Your task to perform on an android device: open device folders in google photos Image 0: 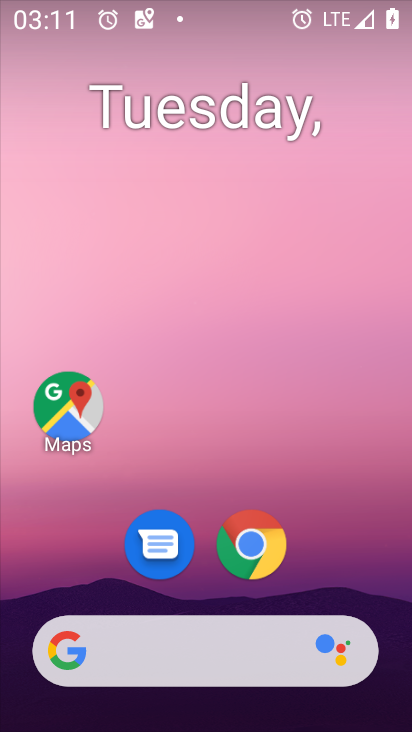
Step 0: drag from (349, 570) to (231, 36)
Your task to perform on an android device: open device folders in google photos Image 1: 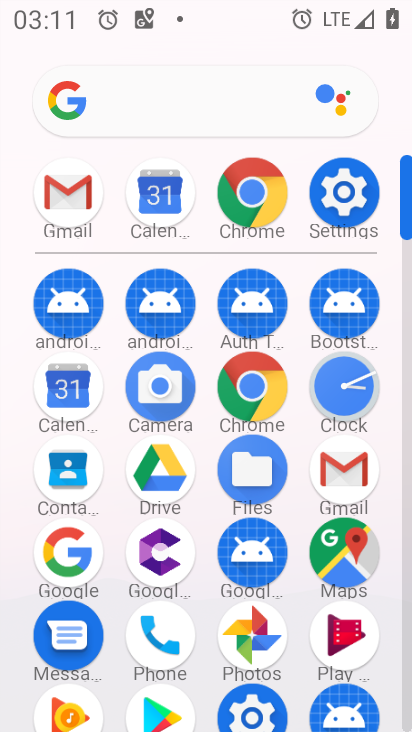
Step 1: drag from (7, 597) to (15, 222)
Your task to perform on an android device: open device folders in google photos Image 2: 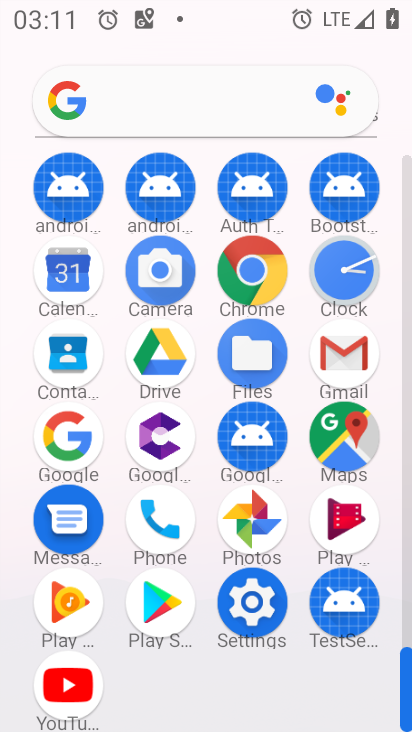
Step 2: drag from (7, 565) to (5, 273)
Your task to perform on an android device: open device folders in google photos Image 3: 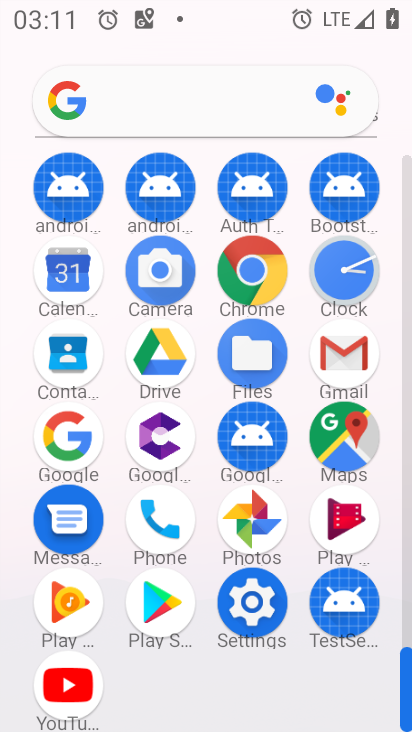
Step 3: click (249, 518)
Your task to perform on an android device: open device folders in google photos Image 4: 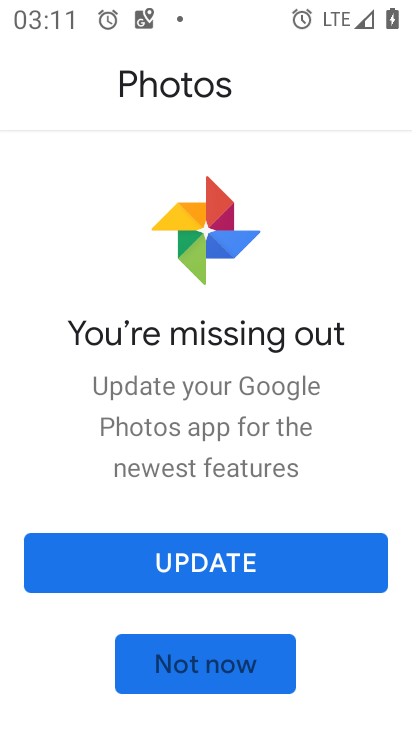
Step 4: click (225, 548)
Your task to perform on an android device: open device folders in google photos Image 5: 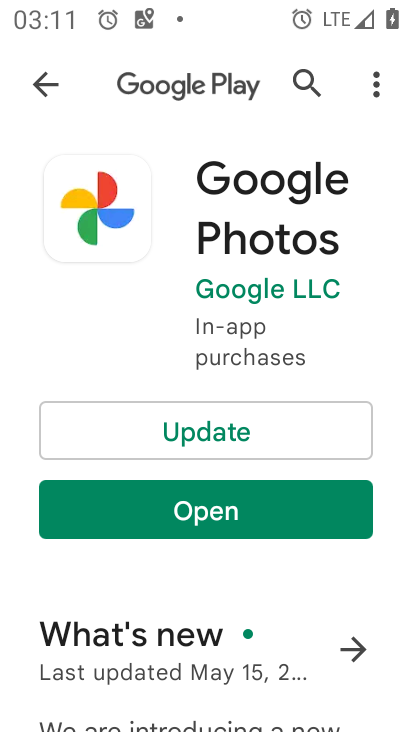
Step 5: click (219, 437)
Your task to perform on an android device: open device folders in google photos Image 6: 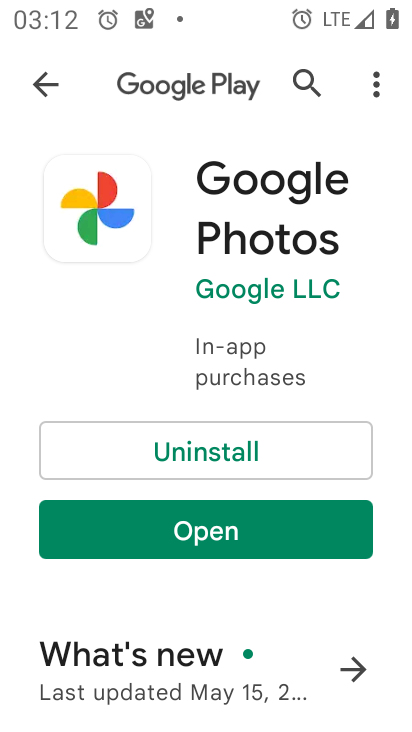
Step 6: click (205, 516)
Your task to perform on an android device: open device folders in google photos Image 7: 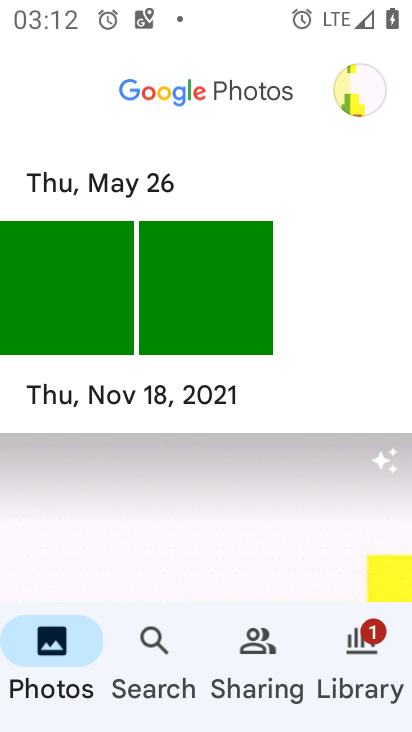
Step 7: click (354, 652)
Your task to perform on an android device: open device folders in google photos Image 8: 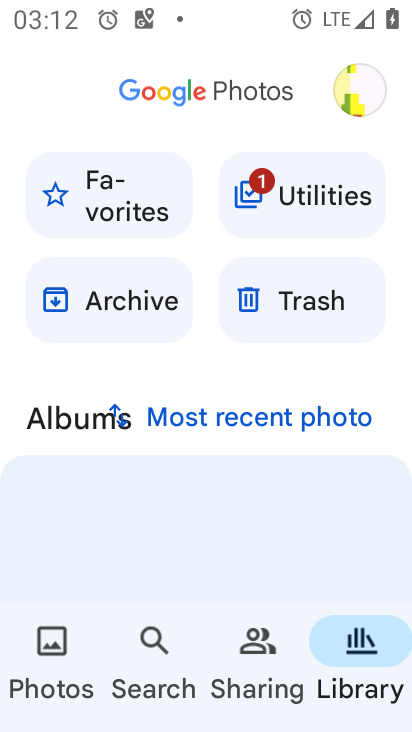
Step 8: click (349, 83)
Your task to perform on an android device: open device folders in google photos Image 9: 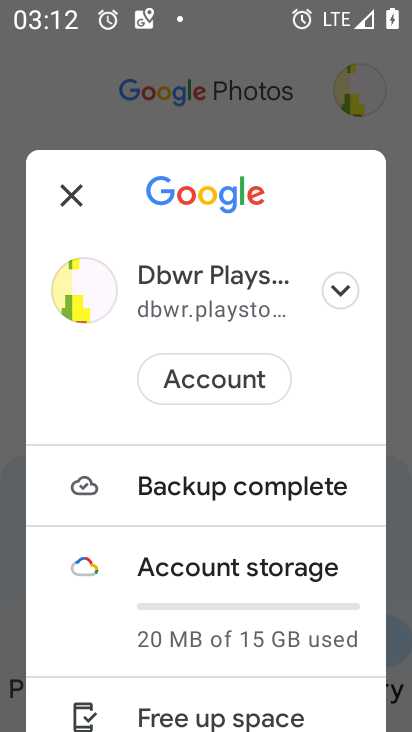
Step 9: click (60, 194)
Your task to perform on an android device: open device folders in google photos Image 10: 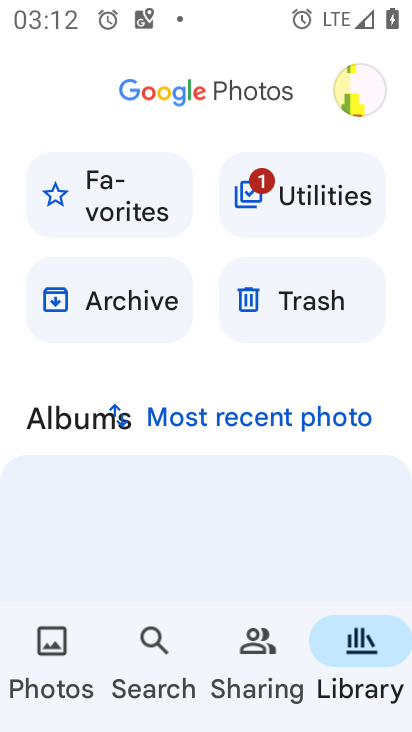
Step 10: task complete